Your task to perform on an android device: open app "Contacts" Image 0: 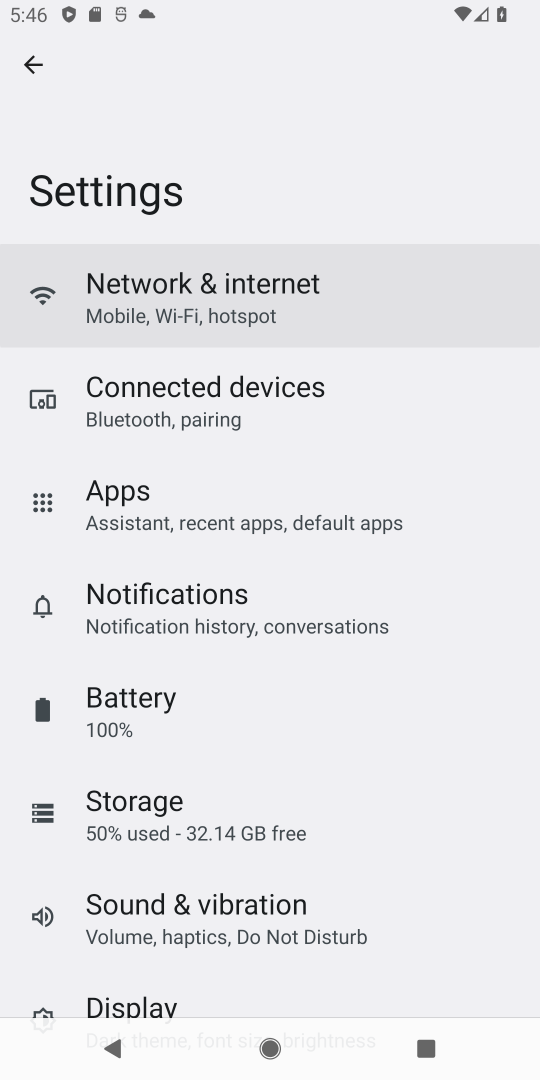
Step 0: press home button
Your task to perform on an android device: open app "Contacts" Image 1: 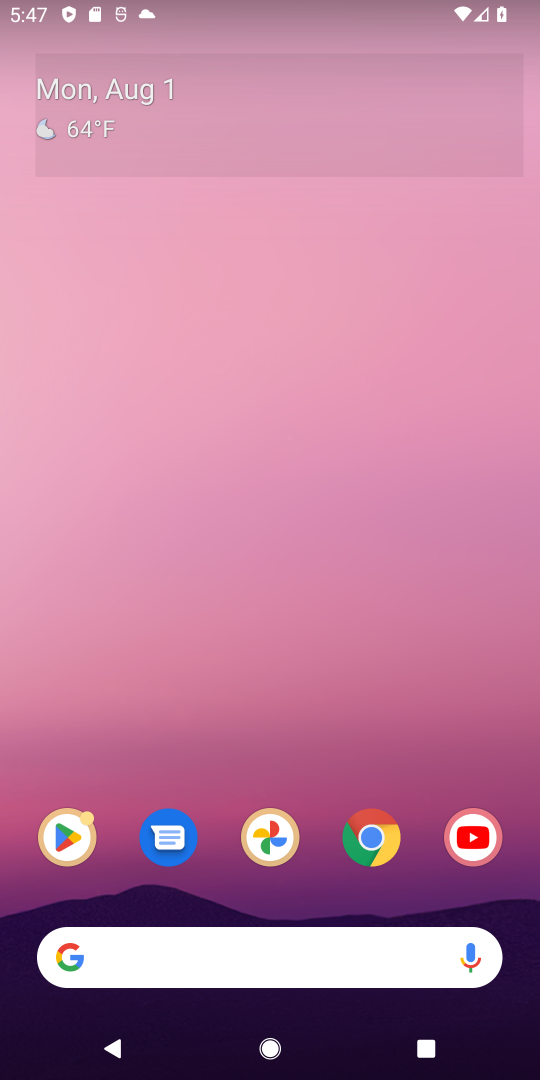
Step 1: drag from (387, 623) to (352, 11)
Your task to perform on an android device: open app "Contacts" Image 2: 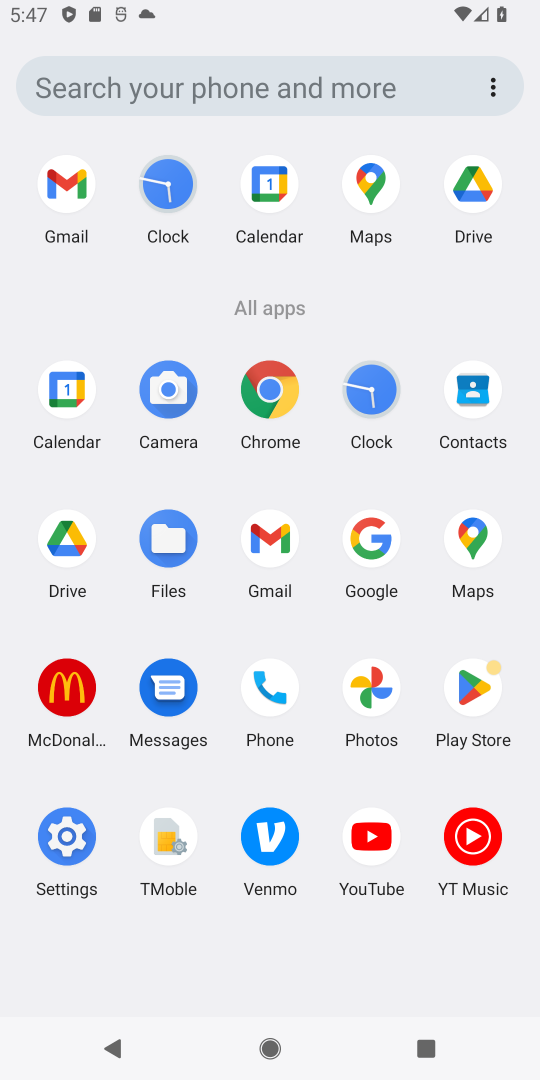
Step 2: click (465, 405)
Your task to perform on an android device: open app "Contacts" Image 3: 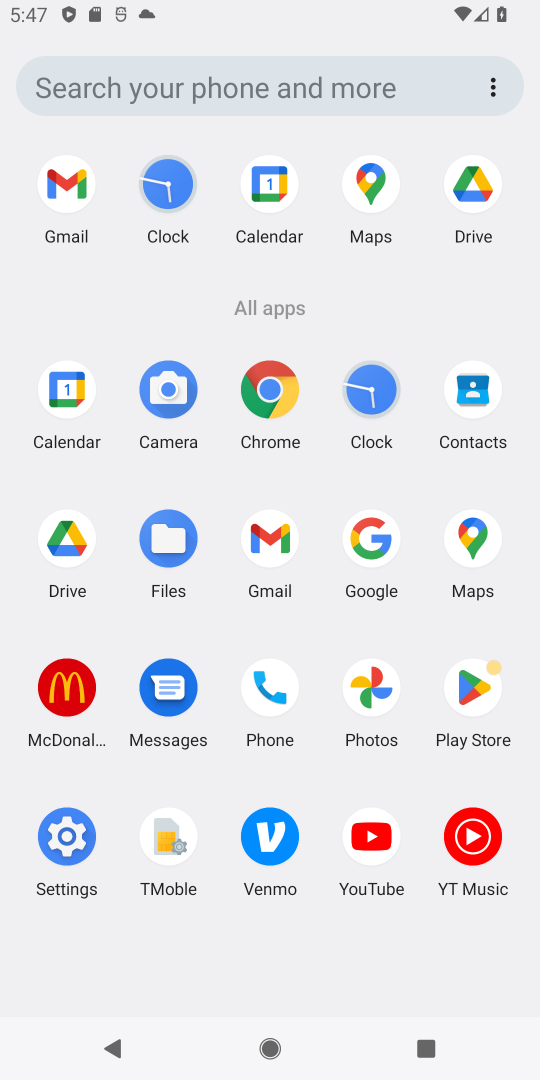
Step 3: click (465, 405)
Your task to perform on an android device: open app "Contacts" Image 4: 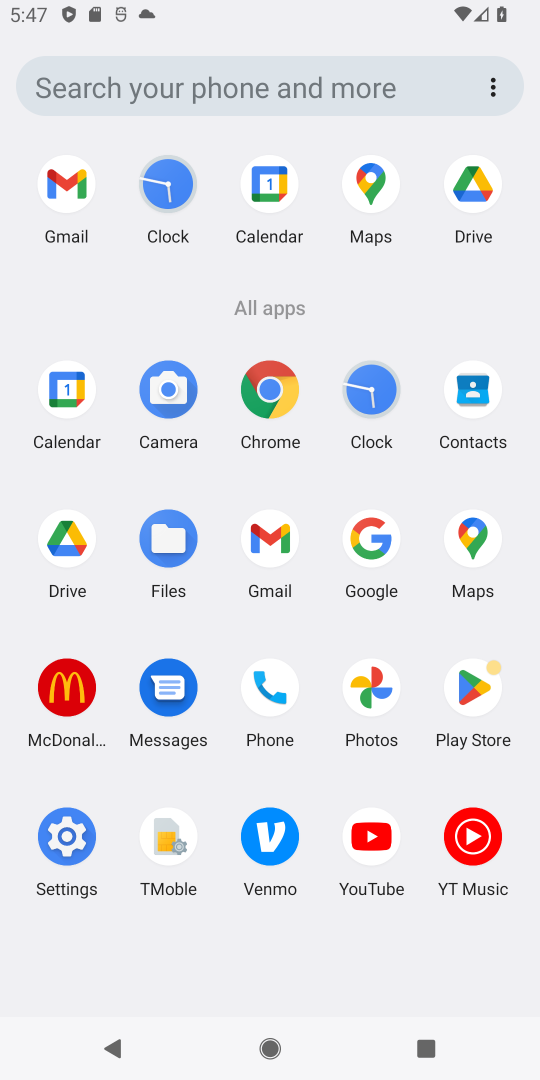
Step 4: click (465, 405)
Your task to perform on an android device: open app "Contacts" Image 5: 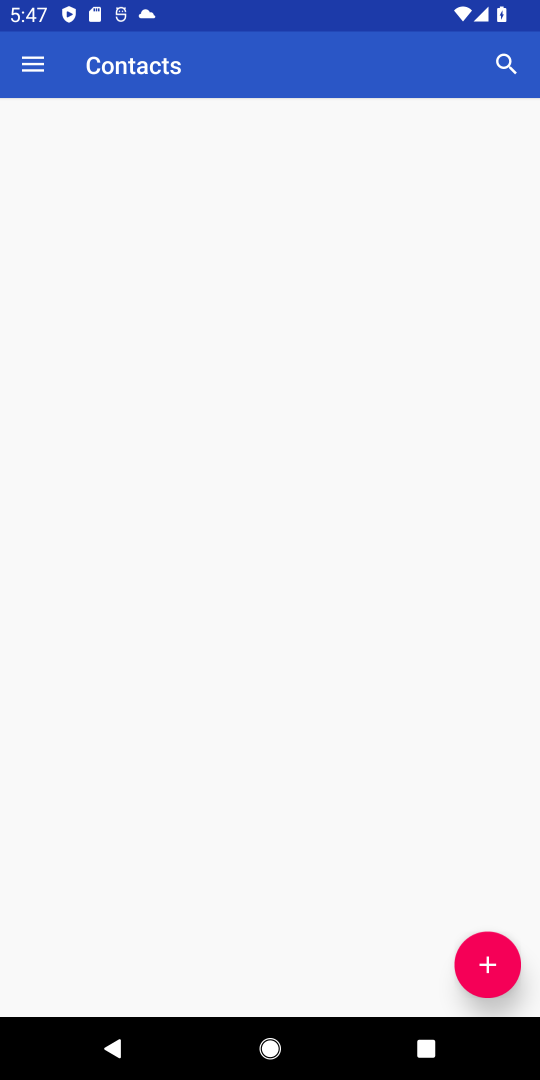
Step 5: task complete